Your task to perform on an android device: find which apps use the phone's location Image 0: 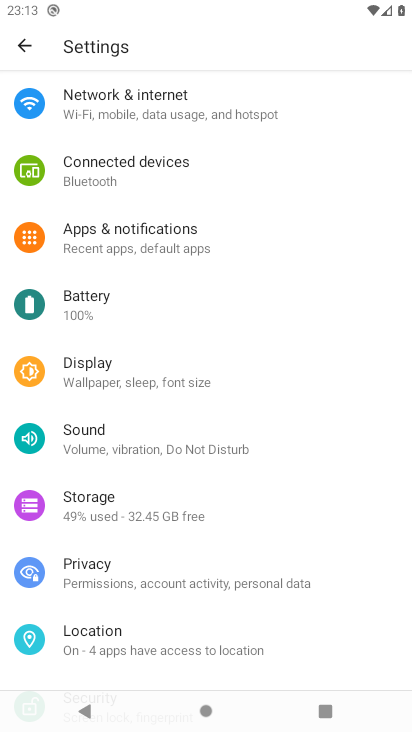
Step 0: click (336, 643)
Your task to perform on an android device: find which apps use the phone's location Image 1: 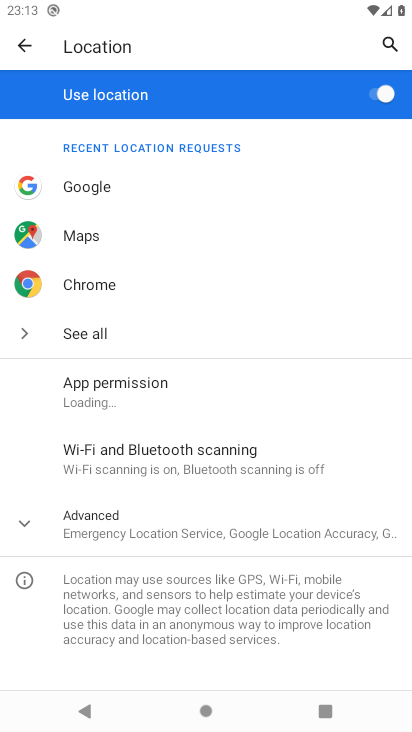
Step 1: click (178, 384)
Your task to perform on an android device: find which apps use the phone's location Image 2: 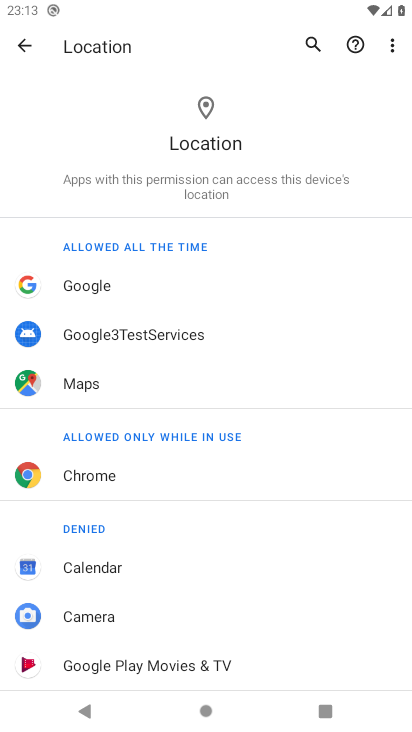
Step 2: task complete